Your task to perform on an android device: Open Chrome and go to settings Image 0: 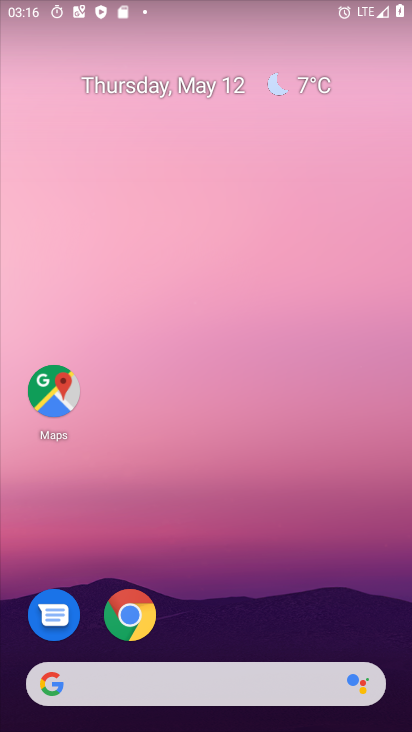
Step 0: click (149, 633)
Your task to perform on an android device: Open Chrome and go to settings Image 1: 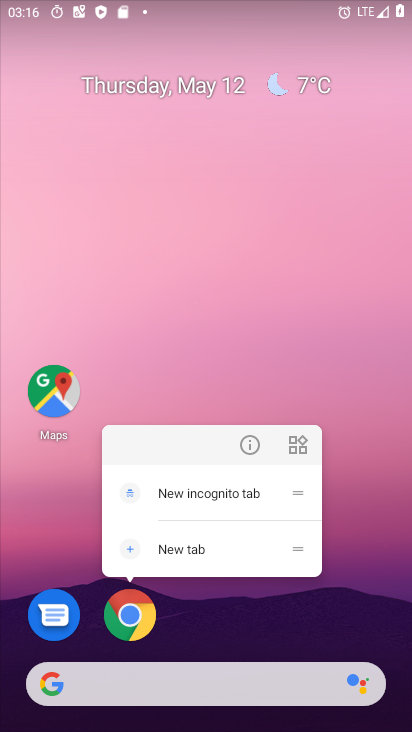
Step 1: click (137, 608)
Your task to perform on an android device: Open Chrome and go to settings Image 2: 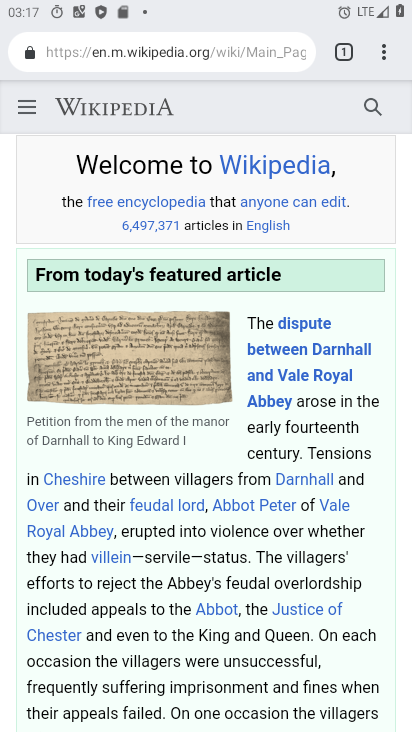
Step 2: task complete